Your task to perform on an android device: Go to Android settings Image 0: 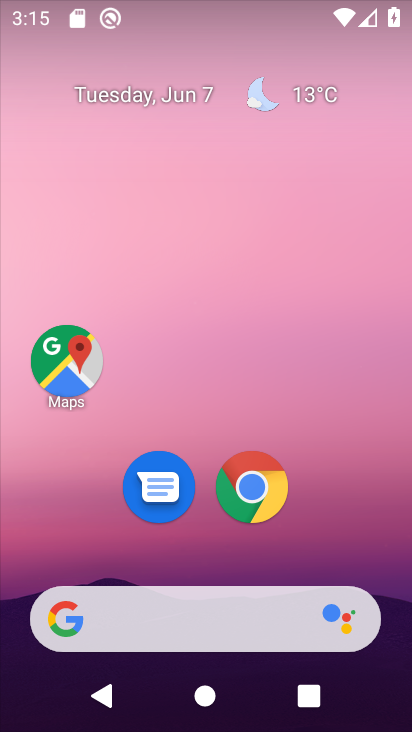
Step 0: drag from (319, 531) to (295, 69)
Your task to perform on an android device: Go to Android settings Image 1: 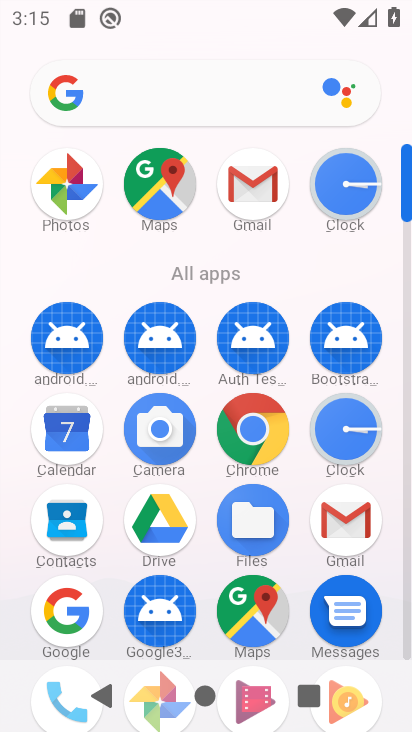
Step 1: drag from (214, 566) to (255, 80)
Your task to perform on an android device: Go to Android settings Image 2: 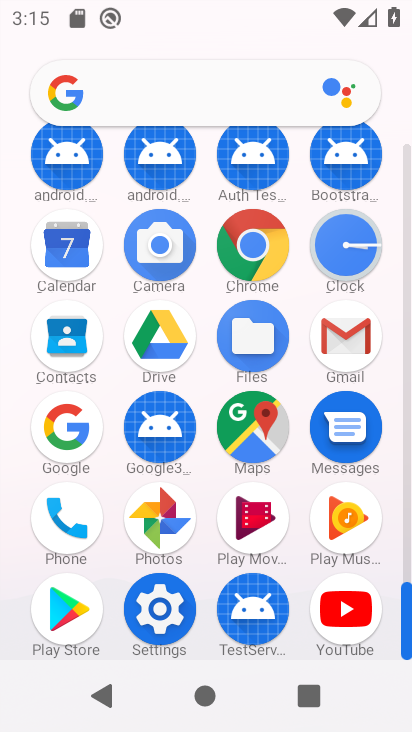
Step 2: click (162, 605)
Your task to perform on an android device: Go to Android settings Image 3: 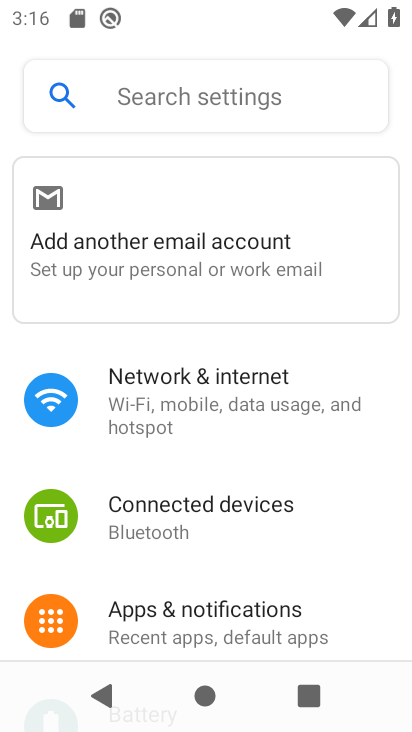
Step 3: task complete